Your task to perform on an android device: toggle sleep mode Image 0: 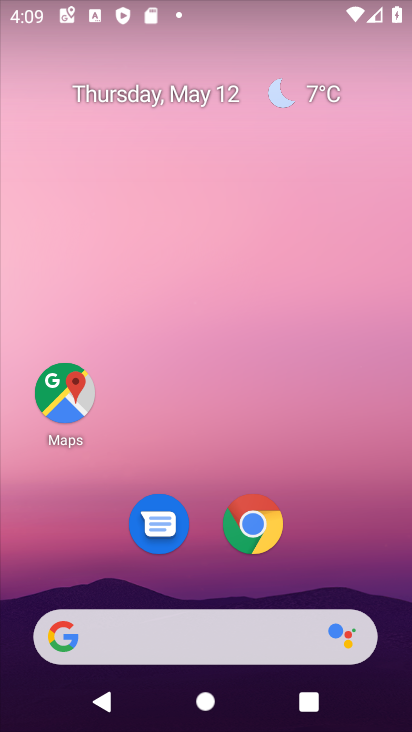
Step 0: drag from (345, 530) to (310, 64)
Your task to perform on an android device: toggle sleep mode Image 1: 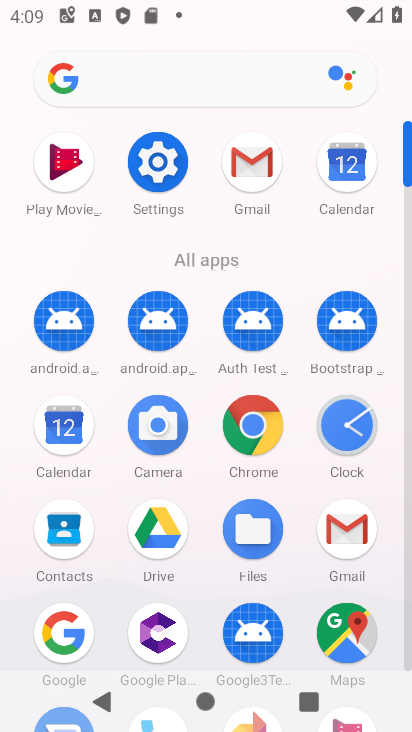
Step 1: click (163, 169)
Your task to perform on an android device: toggle sleep mode Image 2: 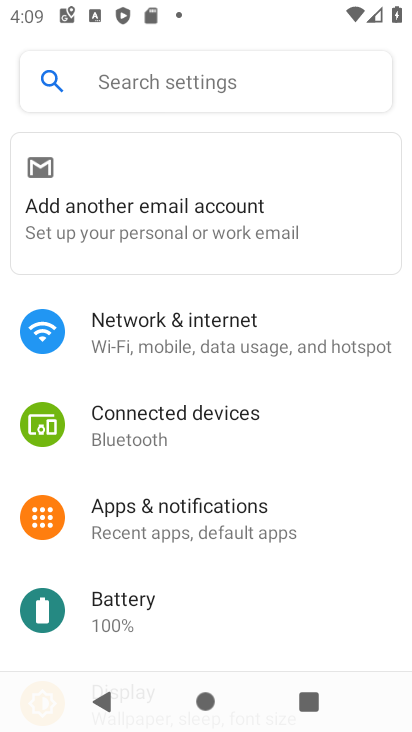
Step 2: drag from (210, 608) to (221, 224)
Your task to perform on an android device: toggle sleep mode Image 3: 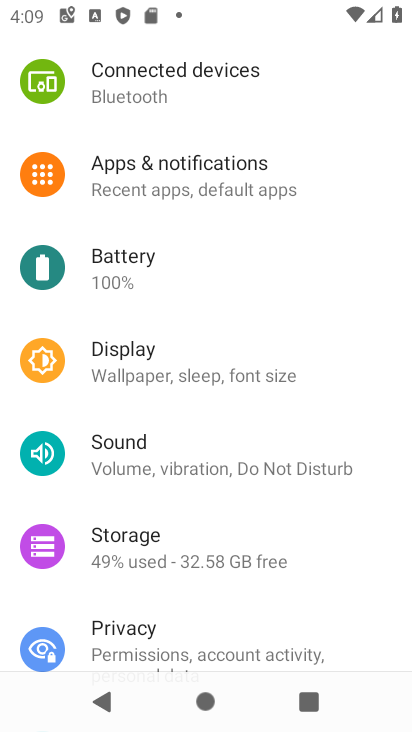
Step 3: click (224, 364)
Your task to perform on an android device: toggle sleep mode Image 4: 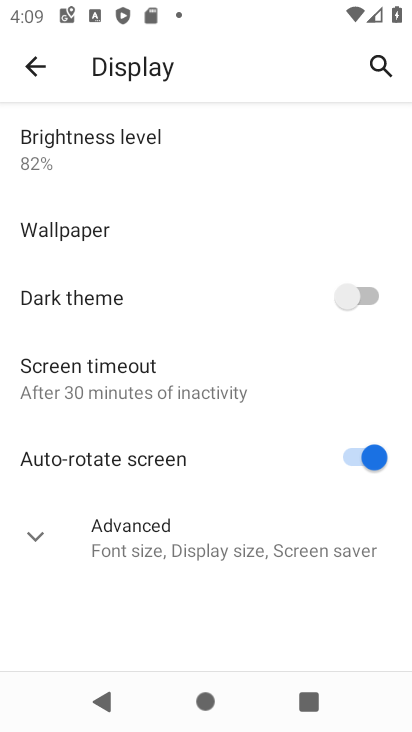
Step 4: click (33, 537)
Your task to perform on an android device: toggle sleep mode Image 5: 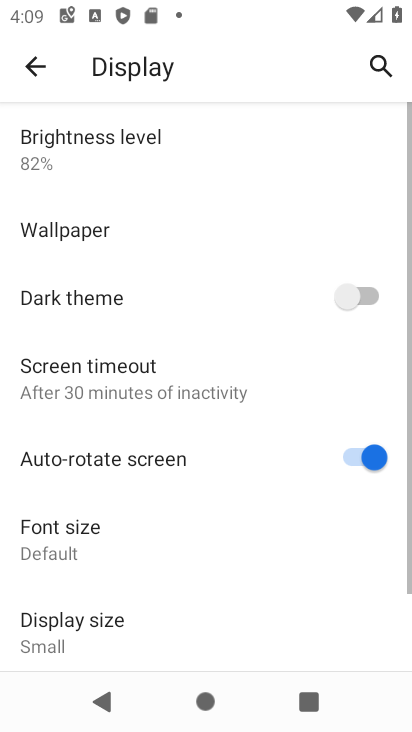
Step 5: task complete